Your task to perform on an android device: clear history in the chrome app Image 0: 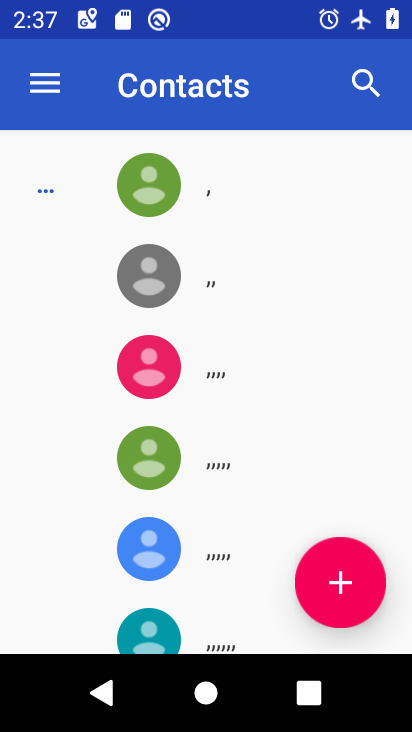
Step 0: press home button
Your task to perform on an android device: clear history in the chrome app Image 1: 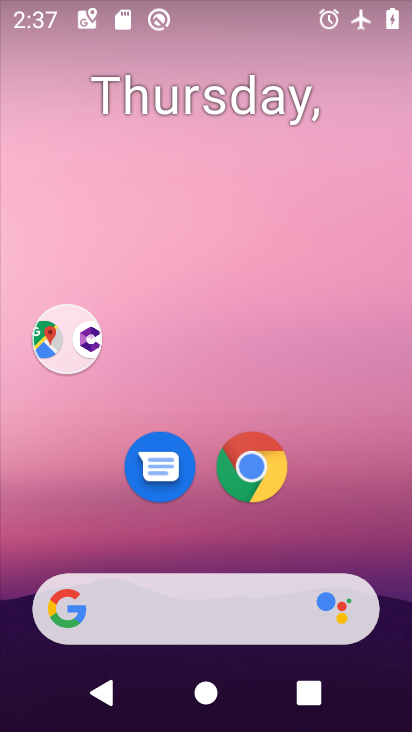
Step 1: drag from (218, 569) to (171, 8)
Your task to perform on an android device: clear history in the chrome app Image 2: 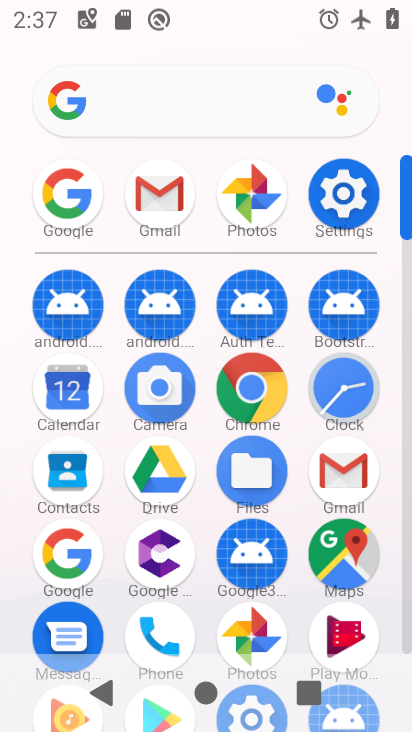
Step 2: click (243, 408)
Your task to perform on an android device: clear history in the chrome app Image 3: 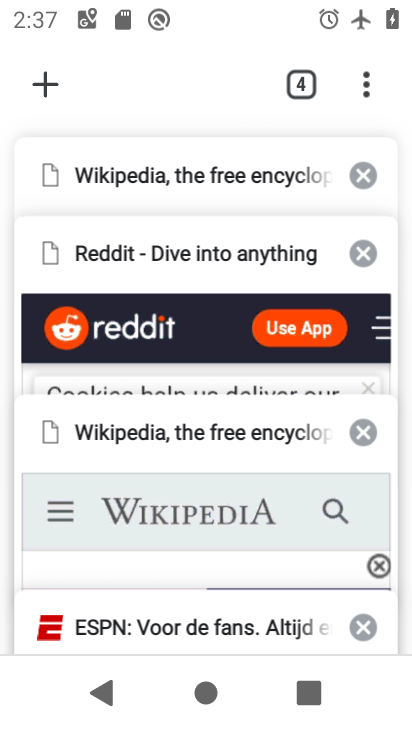
Step 3: click (373, 83)
Your task to perform on an android device: clear history in the chrome app Image 4: 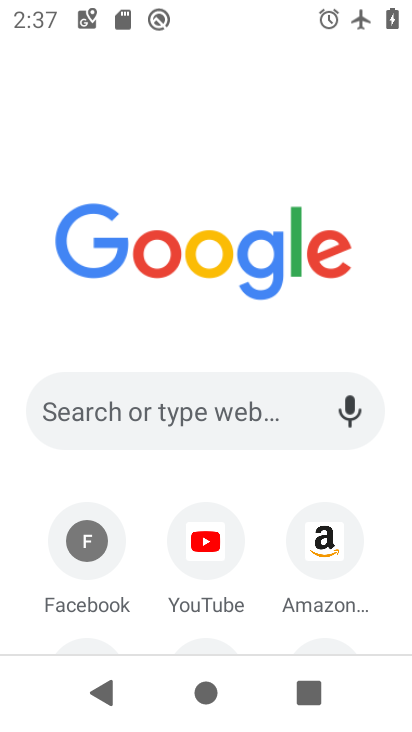
Step 4: click (373, 83)
Your task to perform on an android device: clear history in the chrome app Image 5: 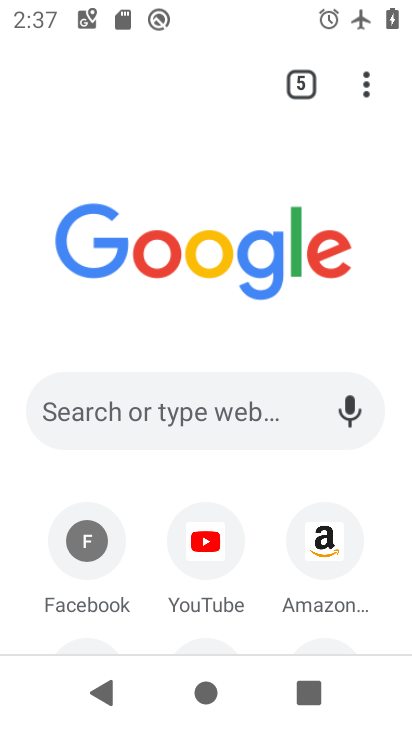
Step 5: click (373, 83)
Your task to perform on an android device: clear history in the chrome app Image 6: 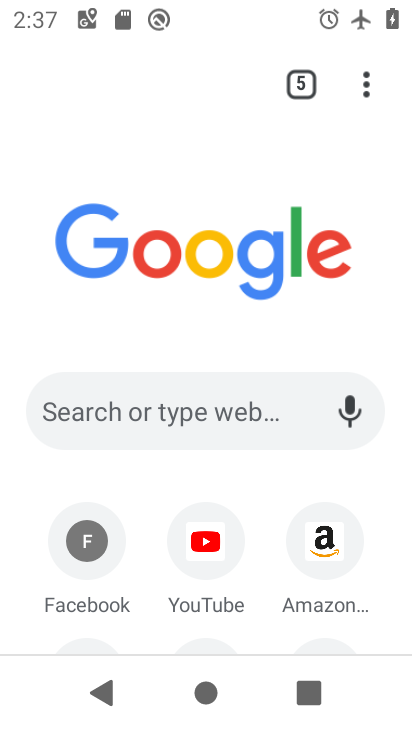
Step 6: click (365, 88)
Your task to perform on an android device: clear history in the chrome app Image 7: 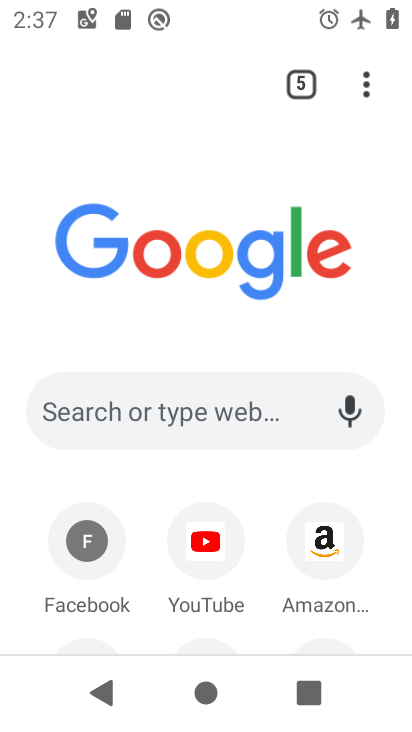
Step 7: task complete